Your task to perform on an android device: Search for Italian restaurants on Maps Image 0: 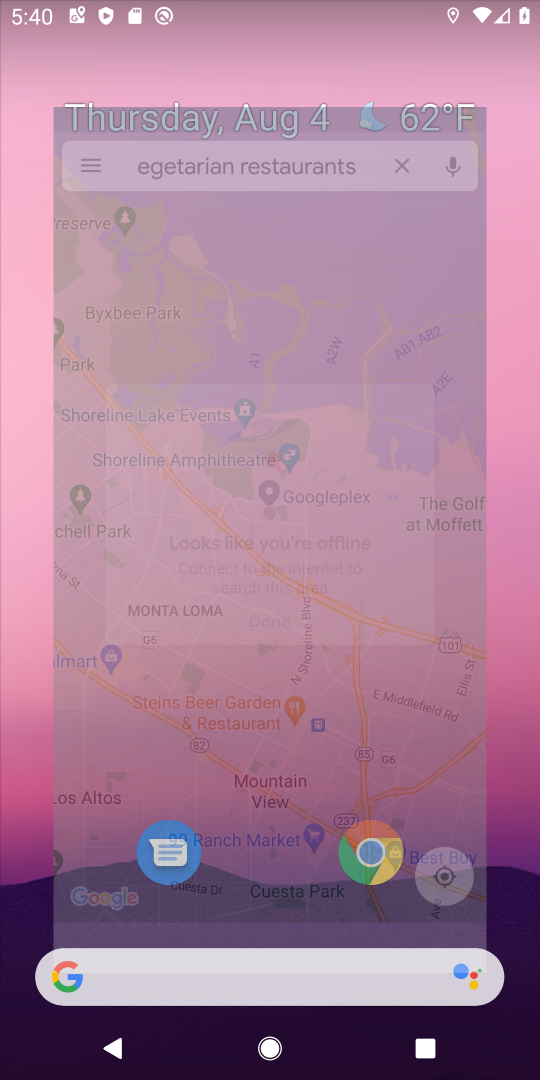
Step 0: press home button
Your task to perform on an android device: Search for Italian restaurants on Maps Image 1: 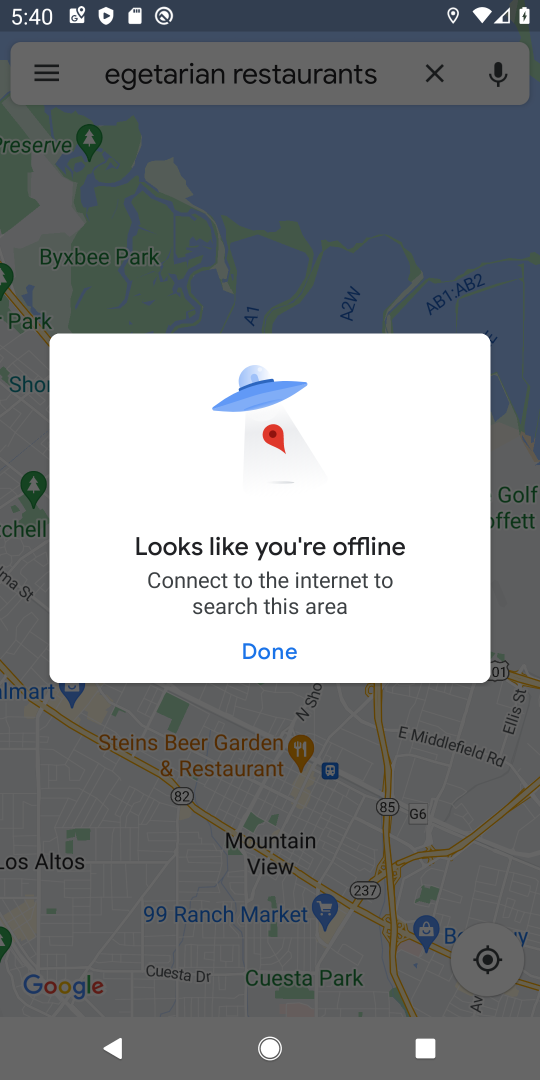
Step 1: press home button
Your task to perform on an android device: Search for Italian restaurants on Maps Image 2: 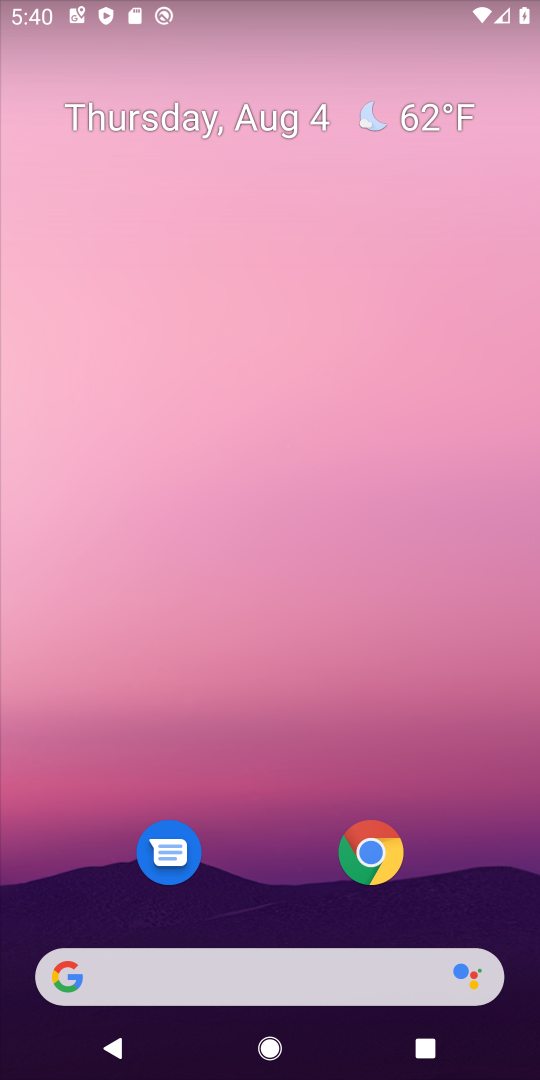
Step 2: press home button
Your task to perform on an android device: Search for Italian restaurants on Maps Image 3: 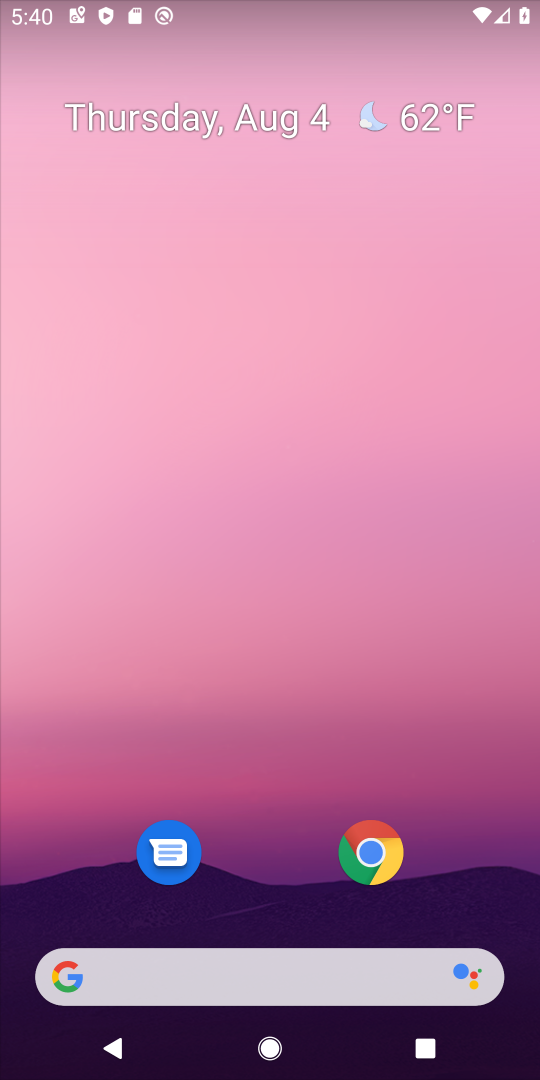
Step 3: drag from (268, 839) to (240, 95)
Your task to perform on an android device: Search for Italian restaurants on Maps Image 4: 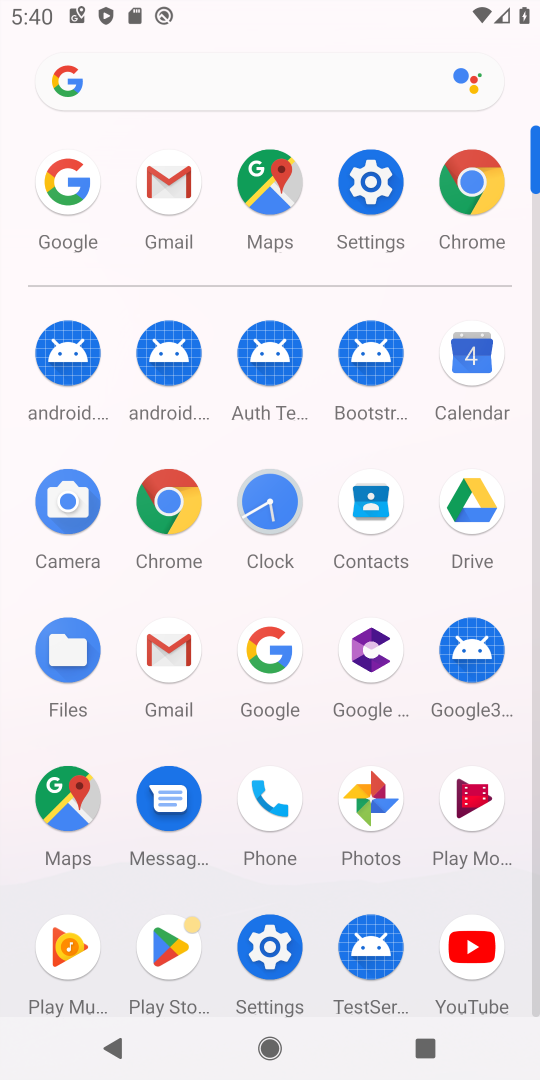
Step 4: click (72, 799)
Your task to perform on an android device: Search for Italian restaurants on Maps Image 5: 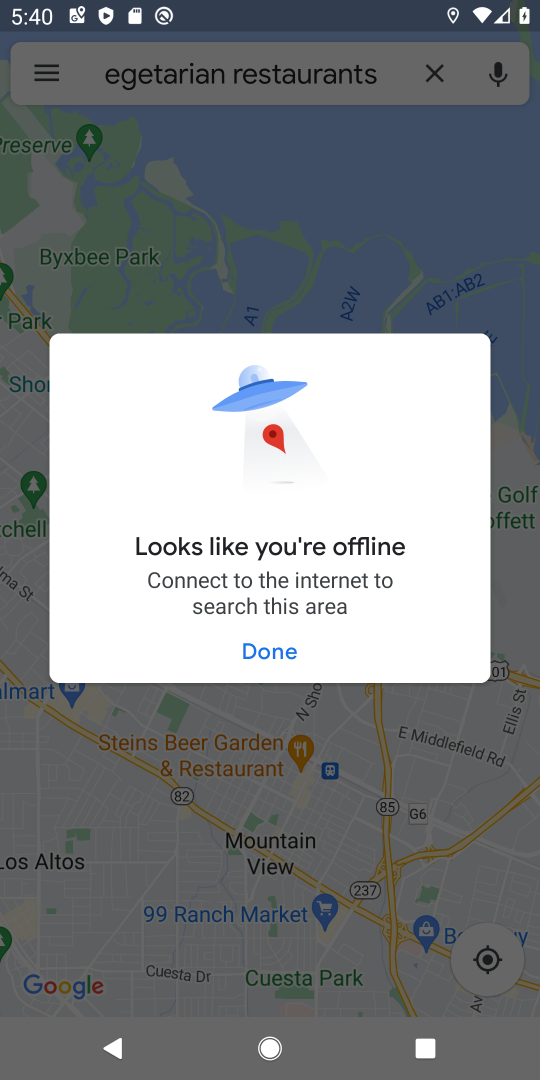
Step 5: click (269, 650)
Your task to perform on an android device: Search for Italian restaurants on Maps Image 6: 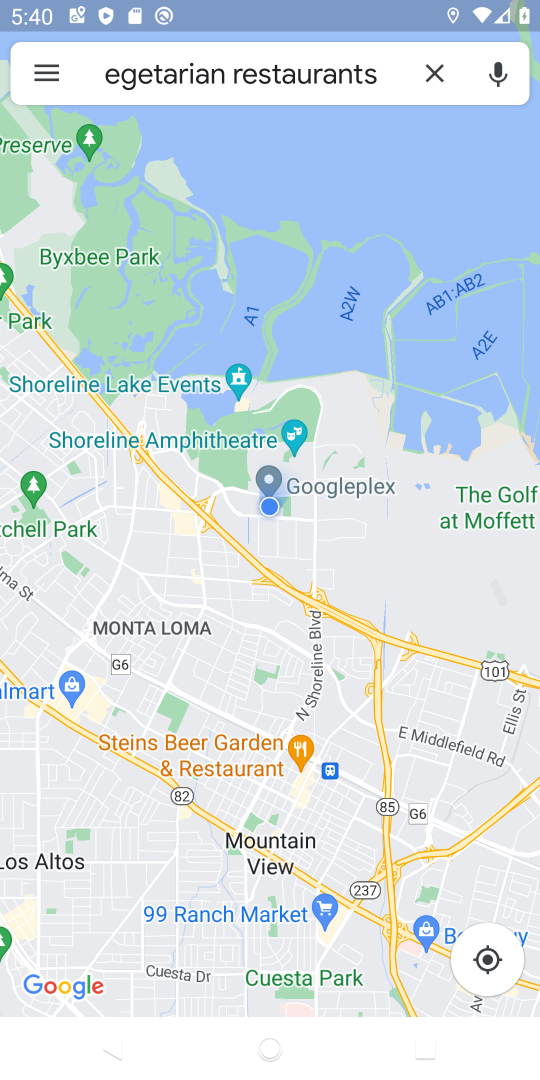
Step 6: click (431, 73)
Your task to perform on an android device: Search for Italian restaurants on Maps Image 7: 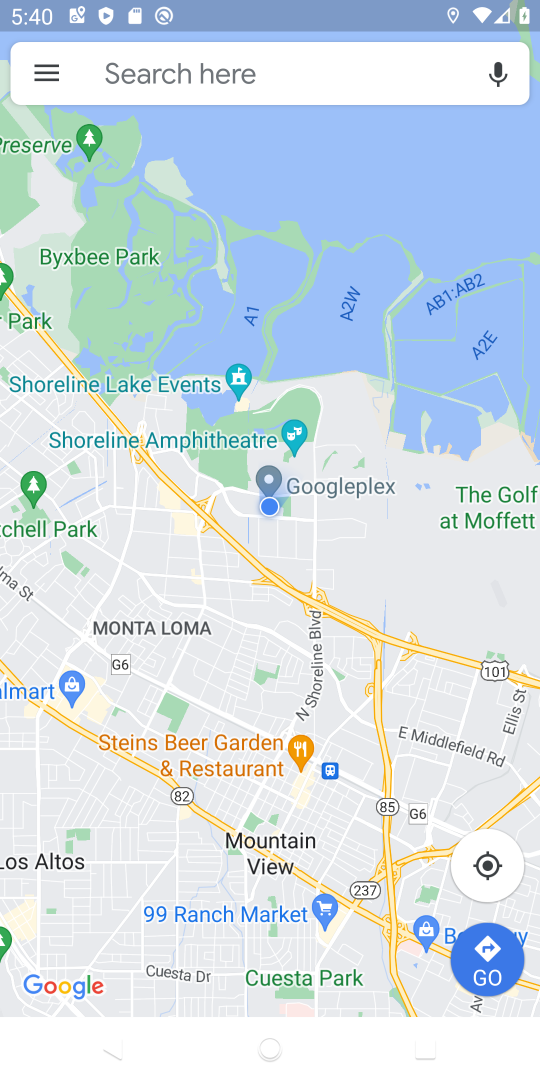
Step 7: click (308, 70)
Your task to perform on an android device: Search for Italian restaurants on Maps Image 8: 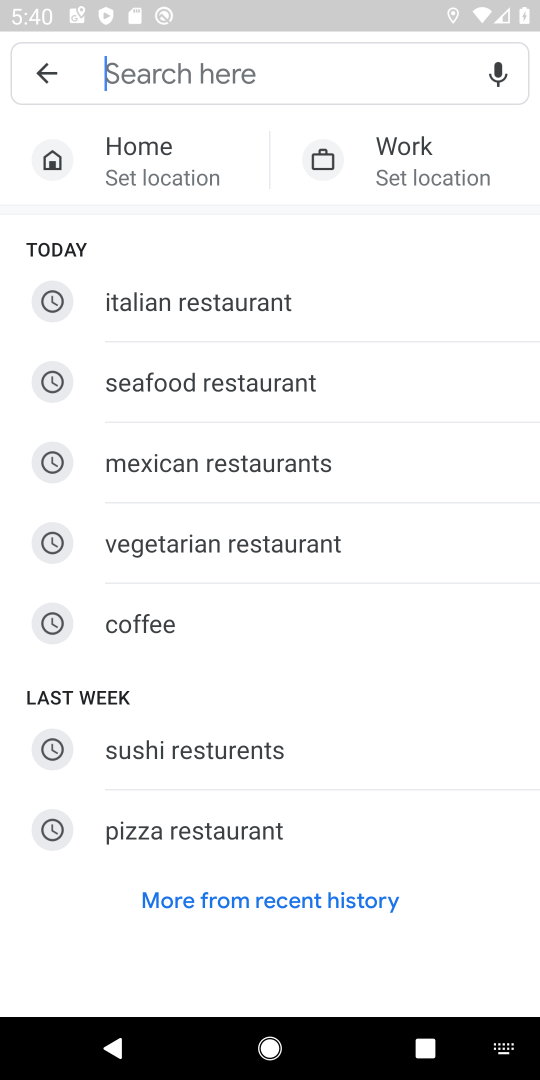
Step 8: type "Italian restaurants"
Your task to perform on an android device: Search for Italian restaurants on Maps Image 9: 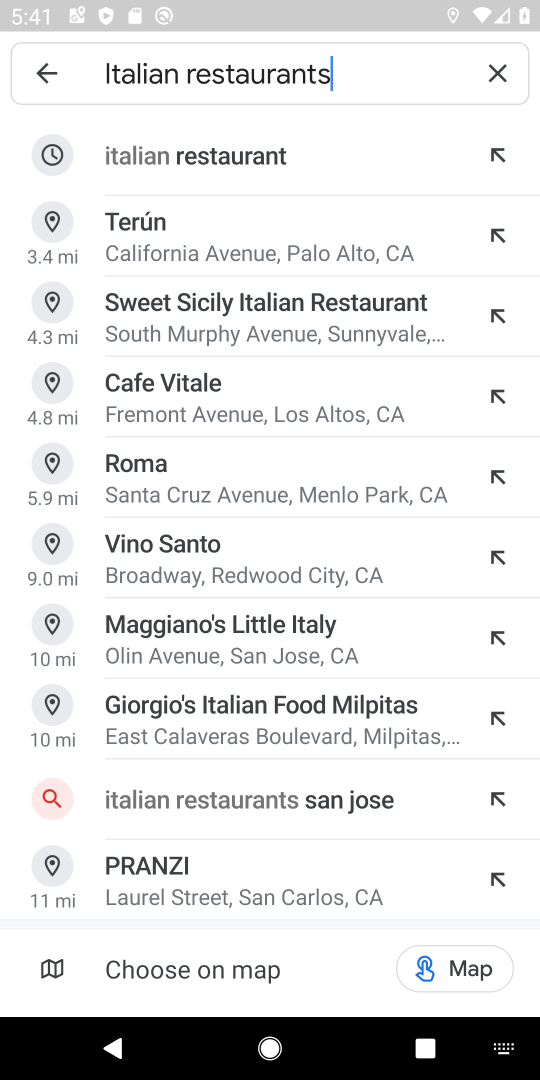
Step 9: click (180, 156)
Your task to perform on an android device: Search for Italian restaurants on Maps Image 10: 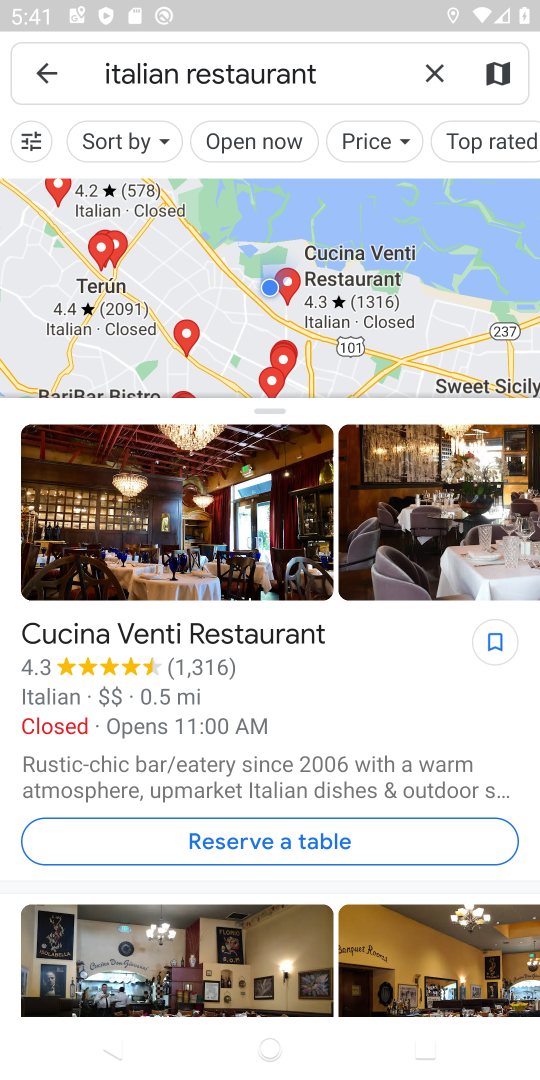
Step 10: task complete